Your task to perform on an android device: turn notification dots on Image 0: 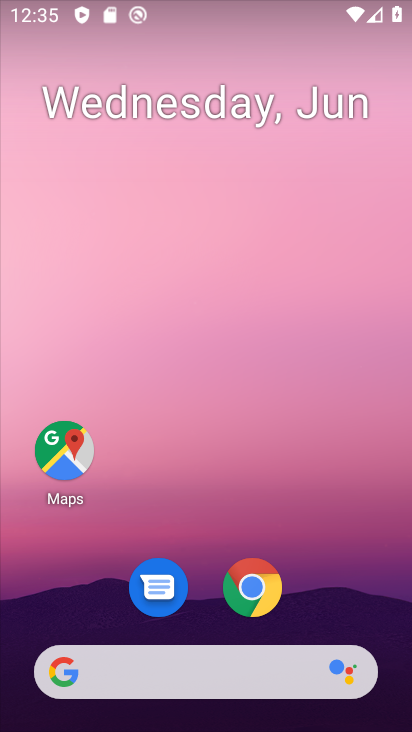
Step 0: drag from (313, 569) to (299, 126)
Your task to perform on an android device: turn notification dots on Image 1: 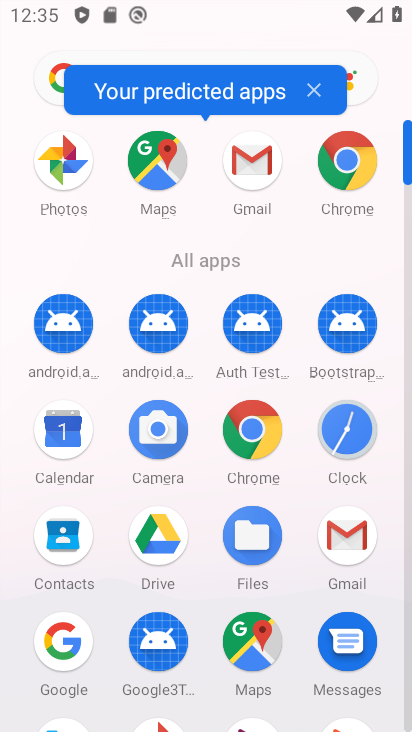
Step 1: drag from (282, 567) to (300, 222)
Your task to perform on an android device: turn notification dots on Image 2: 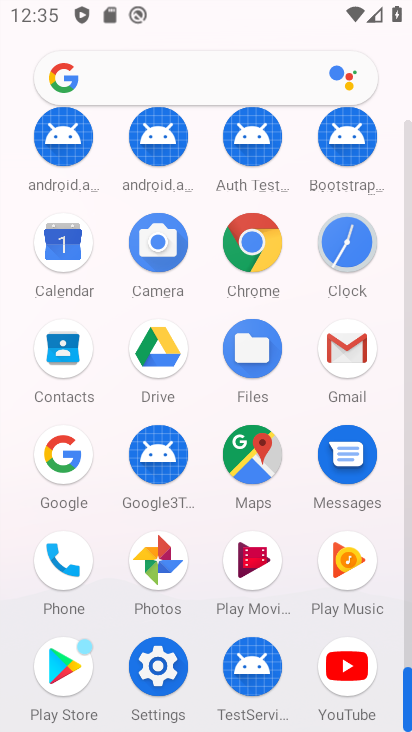
Step 2: click (163, 657)
Your task to perform on an android device: turn notification dots on Image 3: 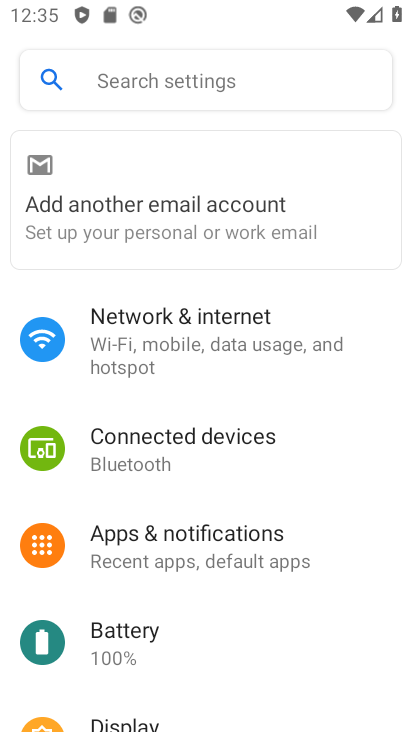
Step 3: drag from (233, 565) to (259, 307)
Your task to perform on an android device: turn notification dots on Image 4: 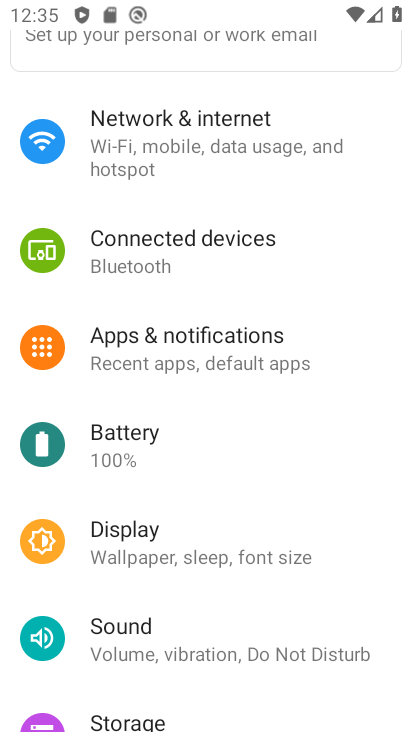
Step 4: click (192, 353)
Your task to perform on an android device: turn notification dots on Image 5: 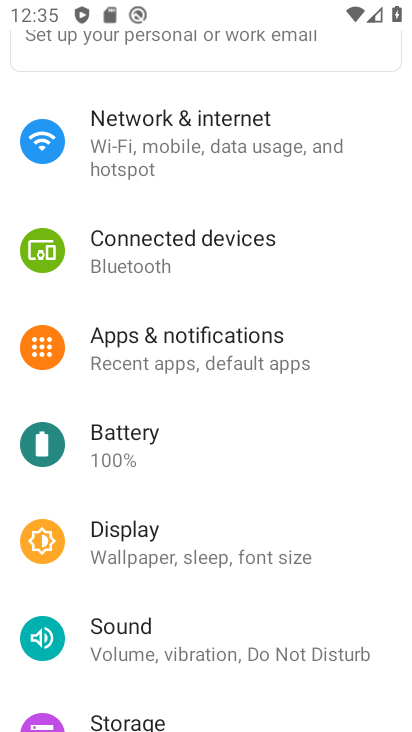
Step 5: click (202, 353)
Your task to perform on an android device: turn notification dots on Image 6: 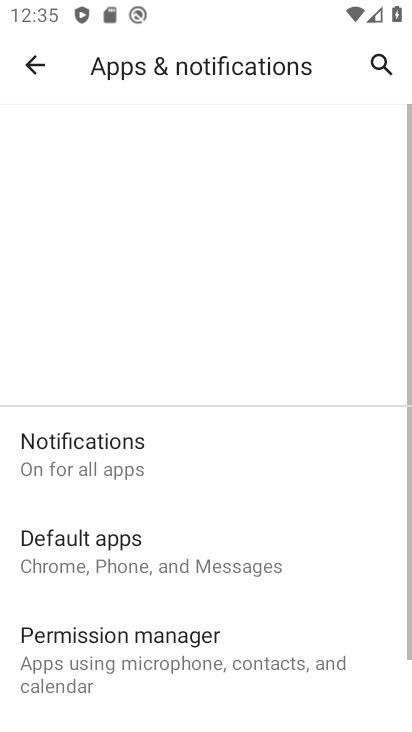
Step 6: click (123, 440)
Your task to perform on an android device: turn notification dots on Image 7: 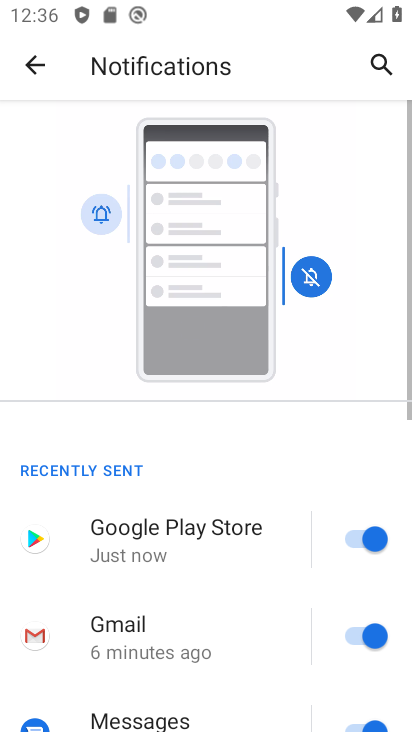
Step 7: drag from (106, 448) to (264, 97)
Your task to perform on an android device: turn notification dots on Image 8: 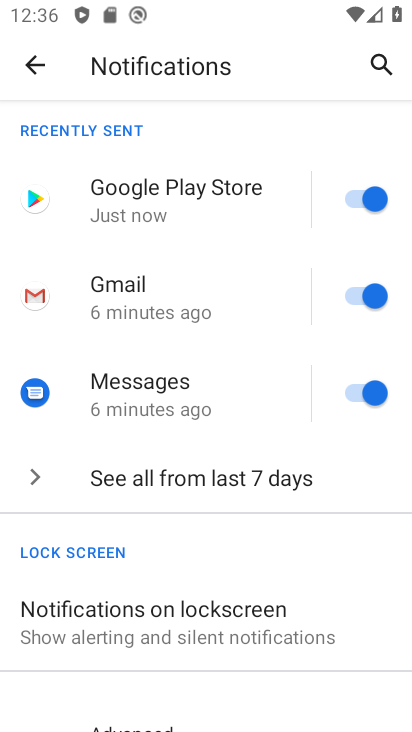
Step 8: drag from (207, 668) to (296, 221)
Your task to perform on an android device: turn notification dots on Image 9: 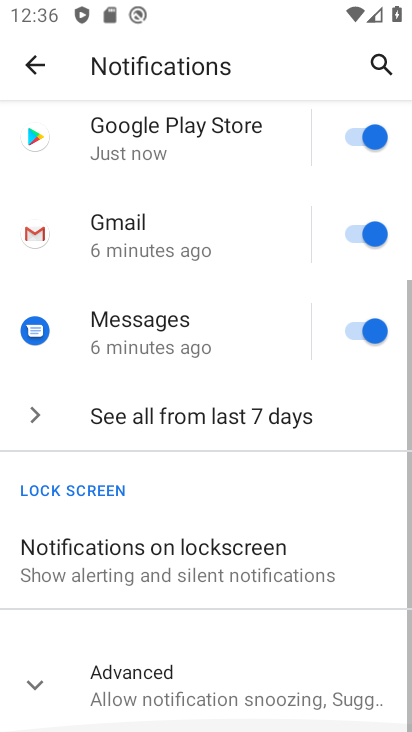
Step 9: click (129, 709)
Your task to perform on an android device: turn notification dots on Image 10: 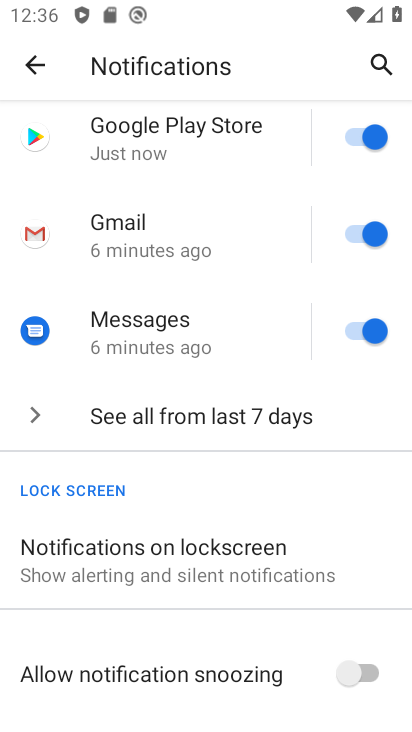
Step 10: task complete